Your task to perform on an android device: Open the calendar app, open the side menu, and click the "Day" option Image 0: 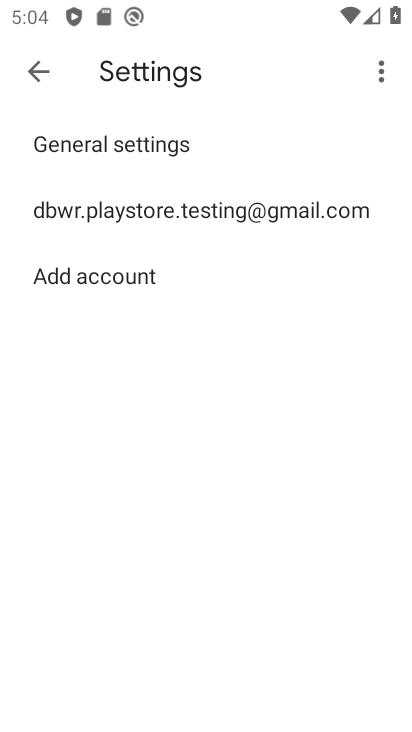
Step 0: press home button
Your task to perform on an android device: Open the calendar app, open the side menu, and click the "Day" option Image 1: 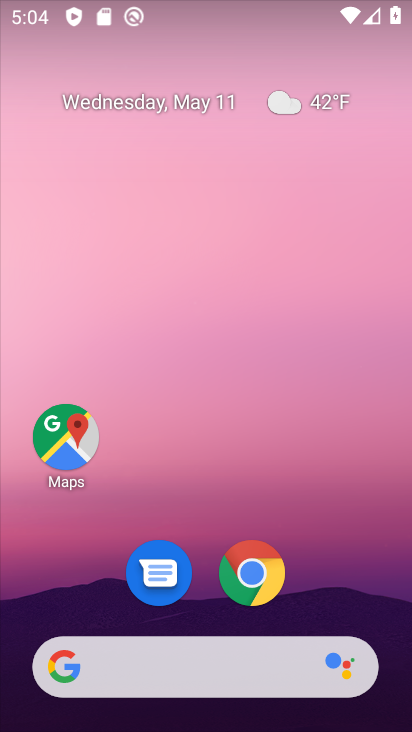
Step 1: drag from (330, 589) to (251, 111)
Your task to perform on an android device: Open the calendar app, open the side menu, and click the "Day" option Image 2: 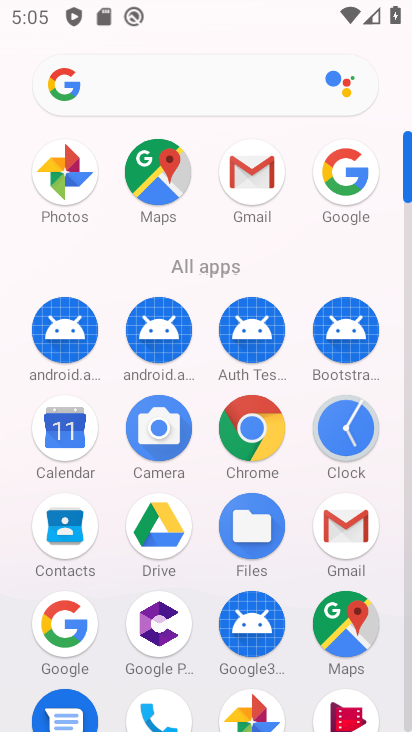
Step 2: click (81, 470)
Your task to perform on an android device: Open the calendar app, open the side menu, and click the "Day" option Image 3: 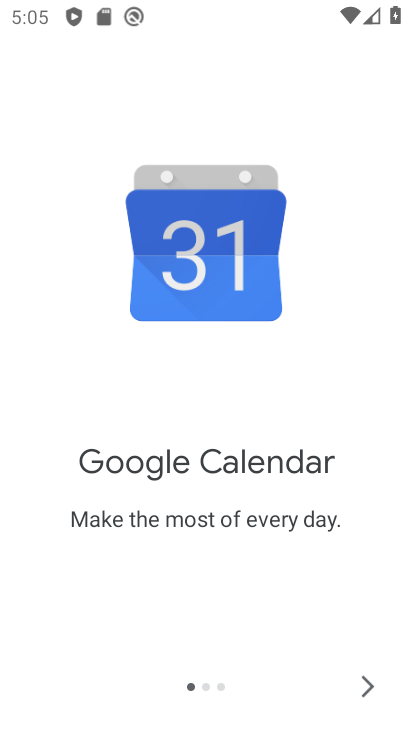
Step 3: click (372, 690)
Your task to perform on an android device: Open the calendar app, open the side menu, and click the "Day" option Image 4: 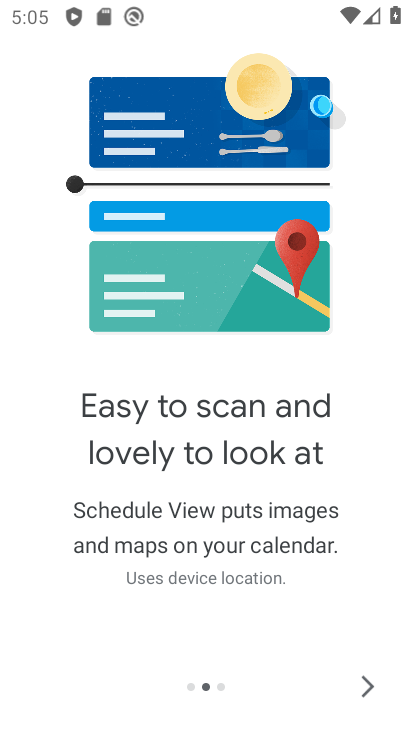
Step 4: click (362, 691)
Your task to perform on an android device: Open the calendar app, open the side menu, and click the "Day" option Image 5: 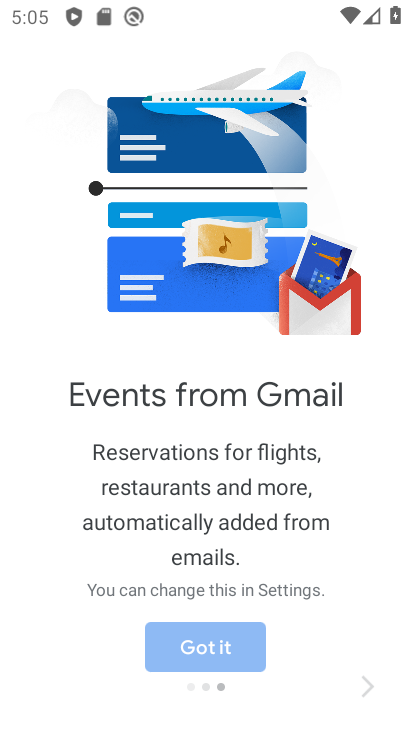
Step 5: click (362, 691)
Your task to perform on an android device: Open the calendar app, open the side menu, and click the "Day" option Image 6: 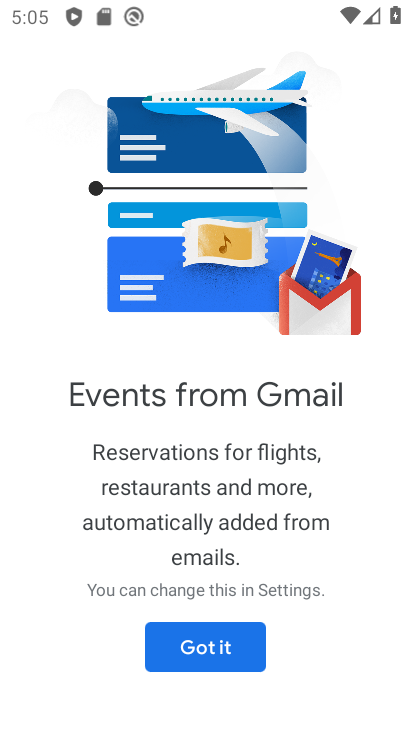
Step 6: click (246, 644)
Your task to perform on an android device: Open the calendar app, open the side menu, and click the "Day" option Image 7: 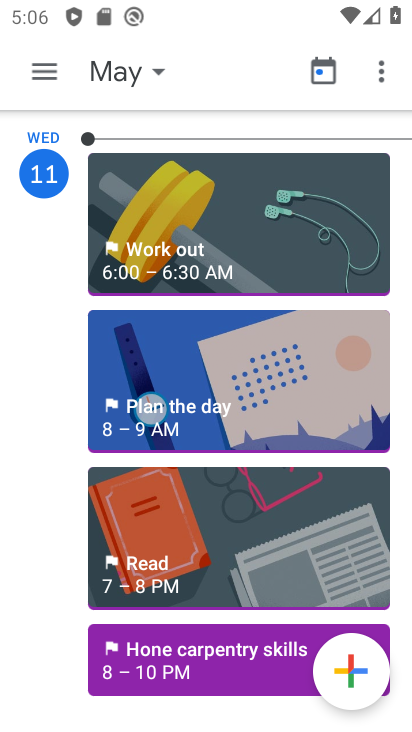
Step 7: click (43, 68)
Your task to perform on an android device: Open the calendar app, open the side menu, and click the "Day" option Image 8: 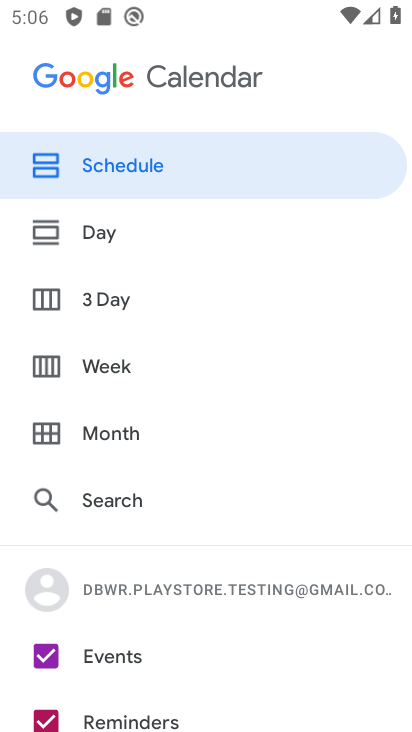
Step 8: click (93, 236)
Your task to perform on an android device: Open the calendar app, open the side menu, and click the "Day" option Image 9: 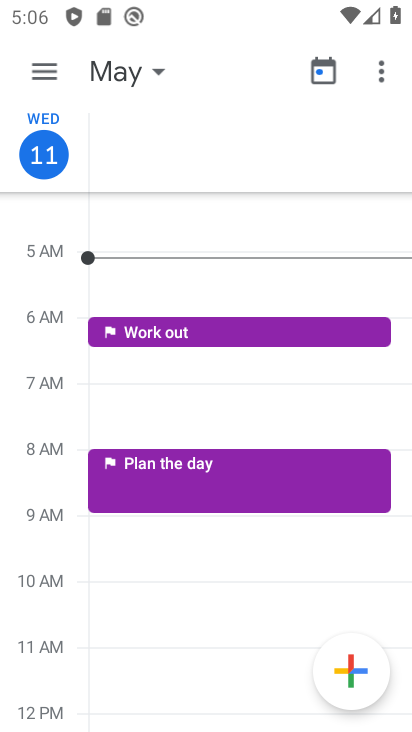
Step 9: task complete